Your task to perform on an android device: Open Google Maps and go to "Timeline" Image 0: 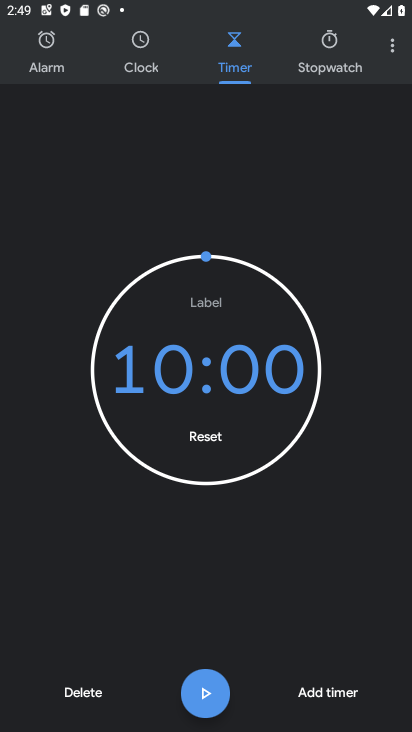
Step 0: press home button
Your task to perform on an android device: Open Google Maps and go to "Timeline" Image 1: 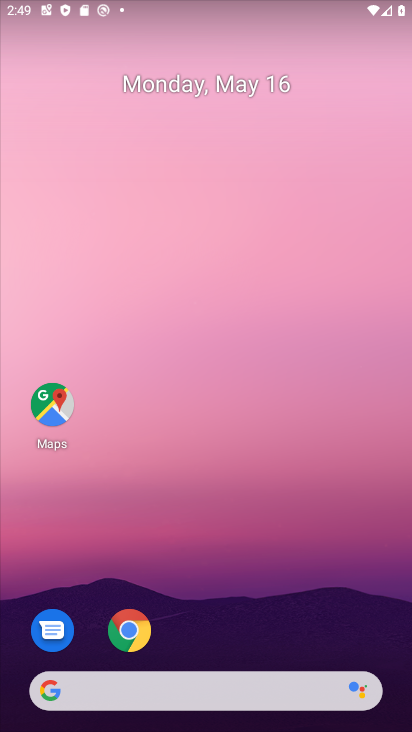
Step 1: drag from (214, 633) to (242, 54)
Your task to perform on an android device: Open Google Maps and go to "Timeline" Image 2: 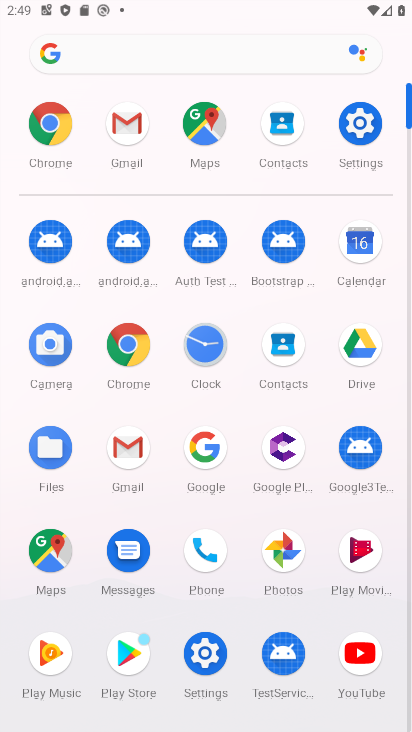
Step 2: click (48, 546)
Your task to perform on an android device: Open Google Maps and go to "Timeline" Image 3: 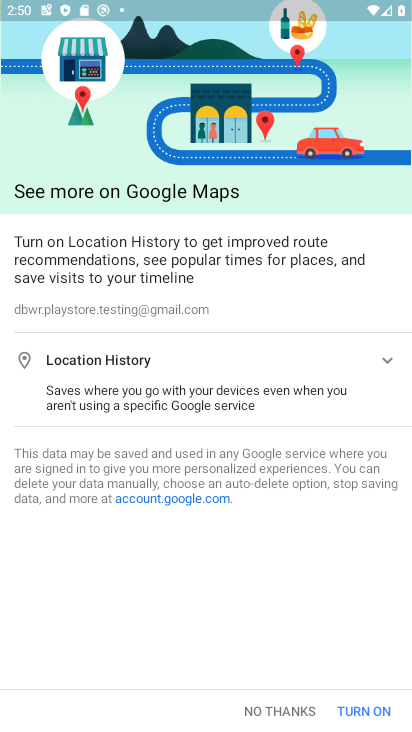
Step 3: click (362, 709)
Your task to perform on an android device: Open Google Maps and go to "Timeline" Image 4: 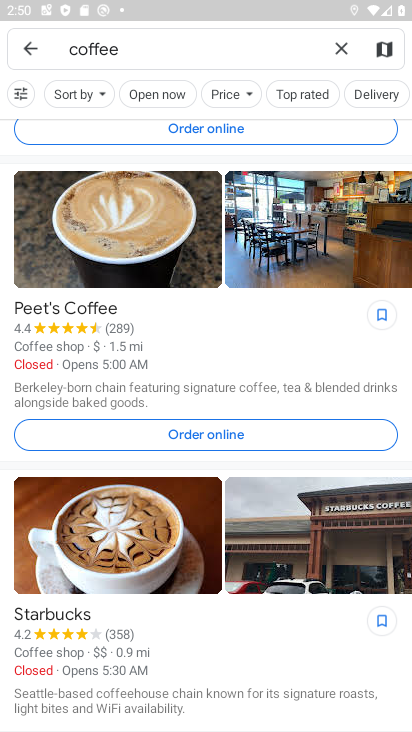
Step 4: task complete